Your task to perform on an android device: toggle show notifications on the lock screen Image 0: 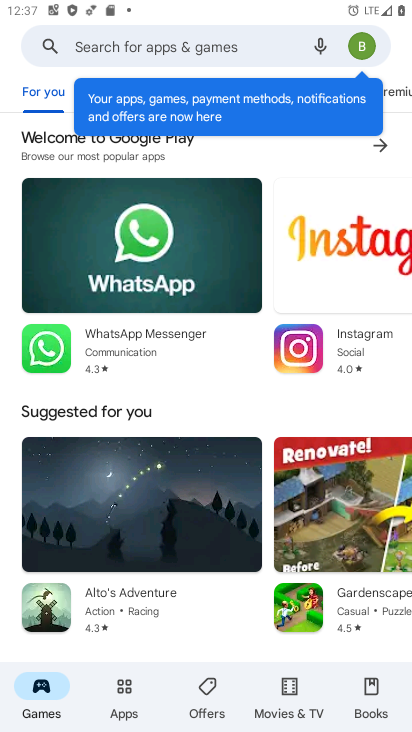
Step 0: press home button
Your task to perform on an android device: toggle show notifications on the lock screen Image 1: 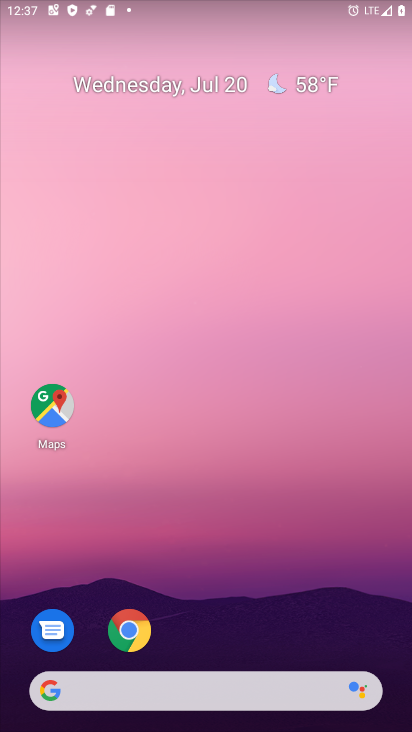
Step 1: drag from (227, 485) to (208, 24)
Your task to perform on an android device: toggle show notifications on the lock screen Image 2: 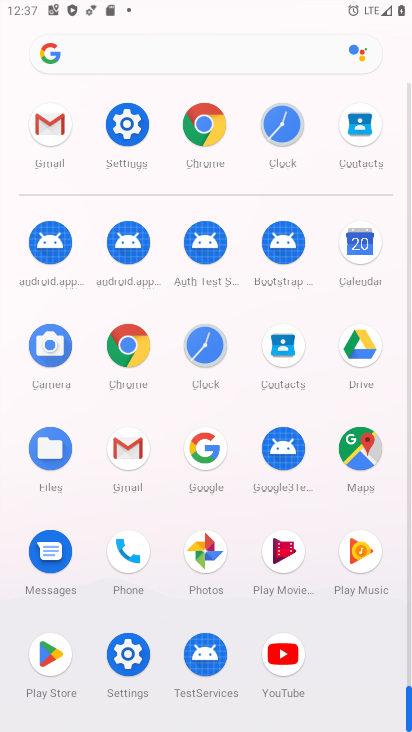
Step 2: click (127, 117)
Your task to perform on an android device: toggle show notifications on the lock screen Image 3: 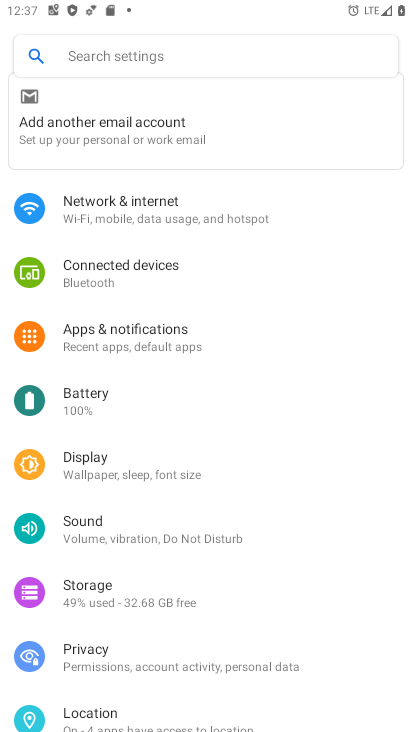
Step 3: click (196, 344)
Your task to perform on an android device: toggle show notifications on the lock screen Image 4: 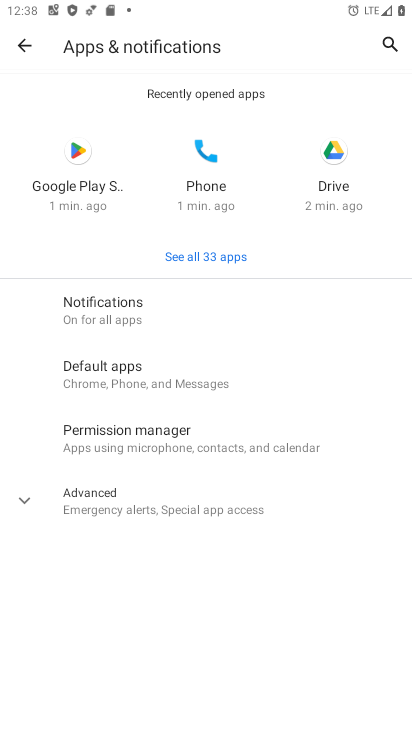
Step 4: click (155, 327)
Your task to perform on an android device: toggle show notifications on the lock screen Image 5: 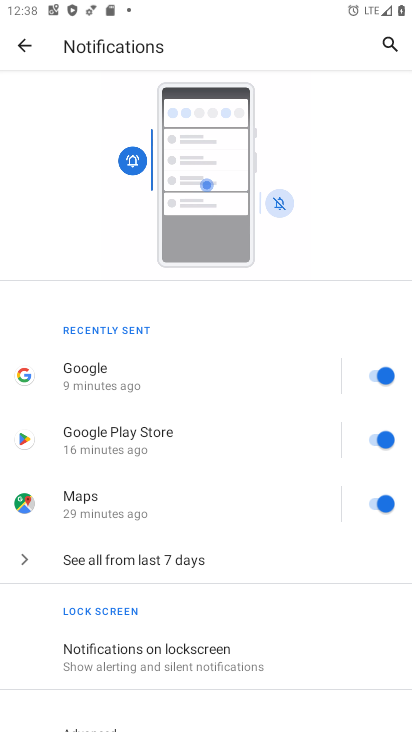
Step 5: click (112, 664)
Your task to perform on an android device: toggle show notifications on the lock screen Image 6: 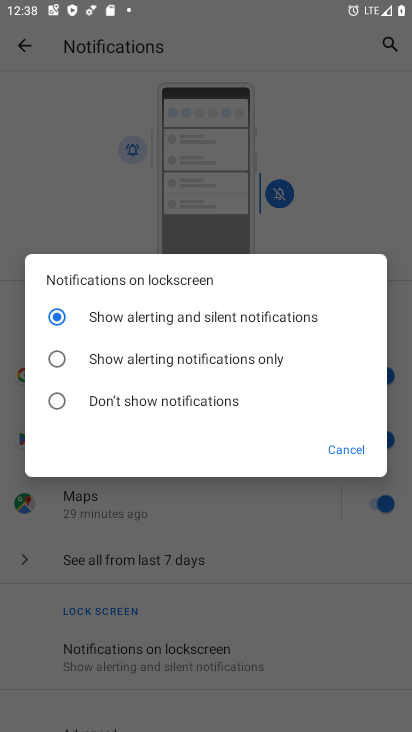
Step 6: click (42, 409)
Your task to perform on an android device: toggle show notifications on the lock screen Image 7: 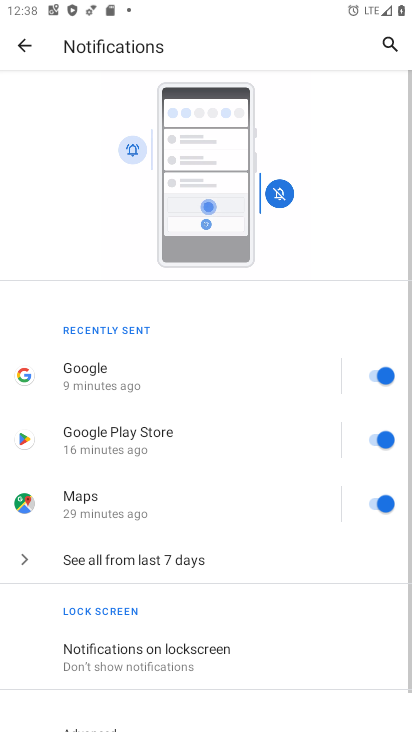
Step 7: task complete